Your task to perform on an android device: Go to eBay Image 0: 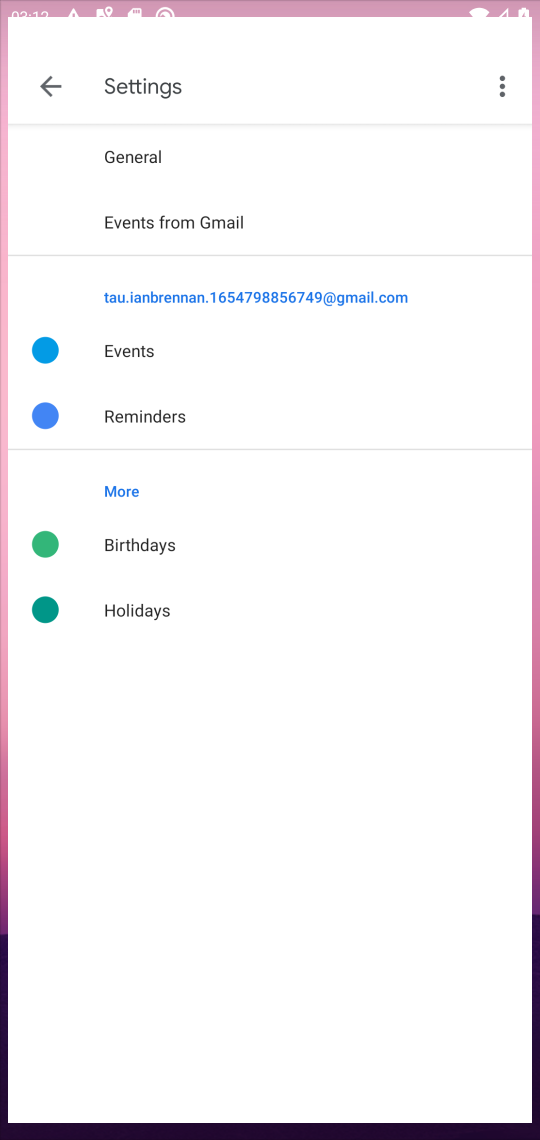
Step 0: drag from (266, 904) to (336, 152)
Your task to perform on an android device: Go to eBay Image 1: 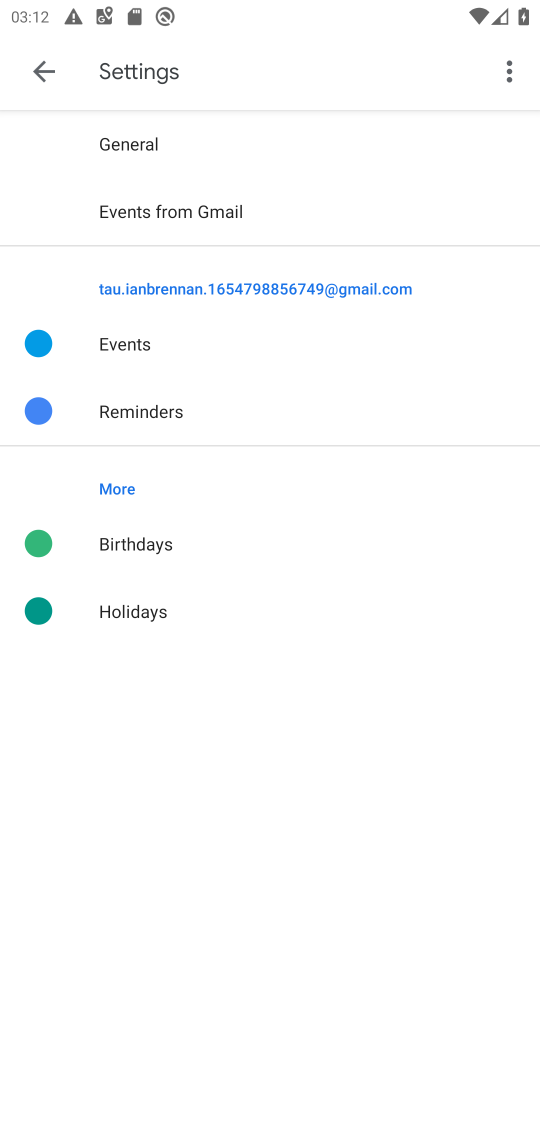
Step 1: press home button
Your task to perform on an android device: Go to eBay Image 2: 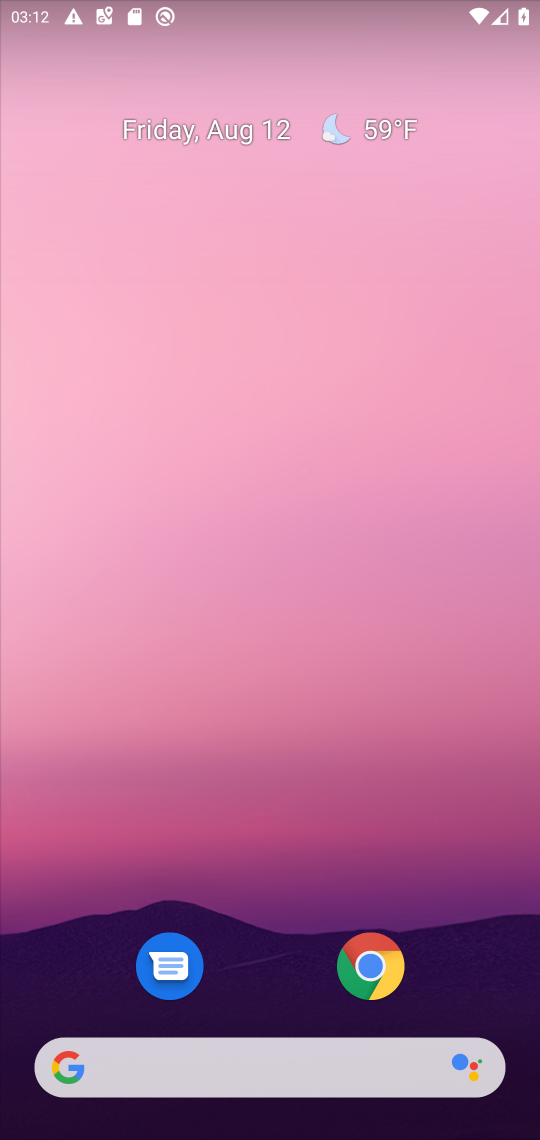
Step 2: drag from (256, 969) to (281, 88)
Your task to perform on an android device: Go to eBay Image 3: 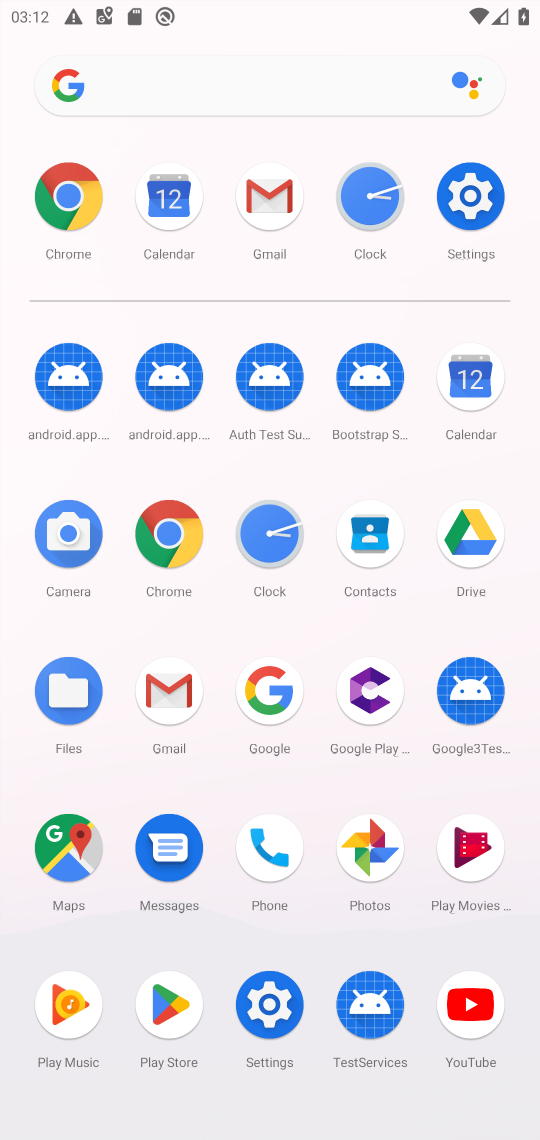
Step 3: click (164, 525)
Your task to perform on an android device: Go to eBay Image 4: 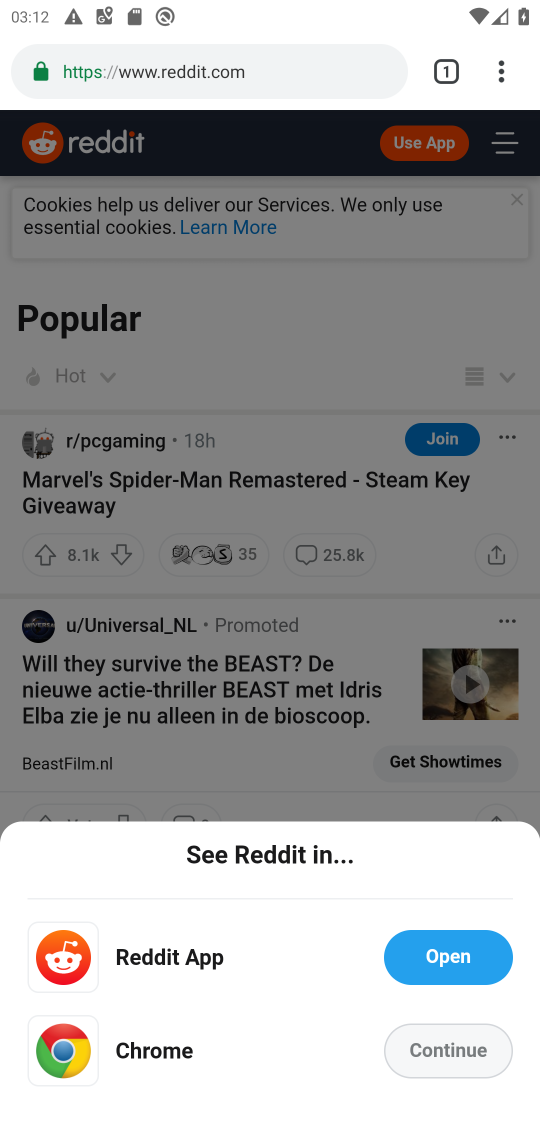
Step 4: click (168, 74)
Your task to perform on an android device: Go to eBay Image 5: 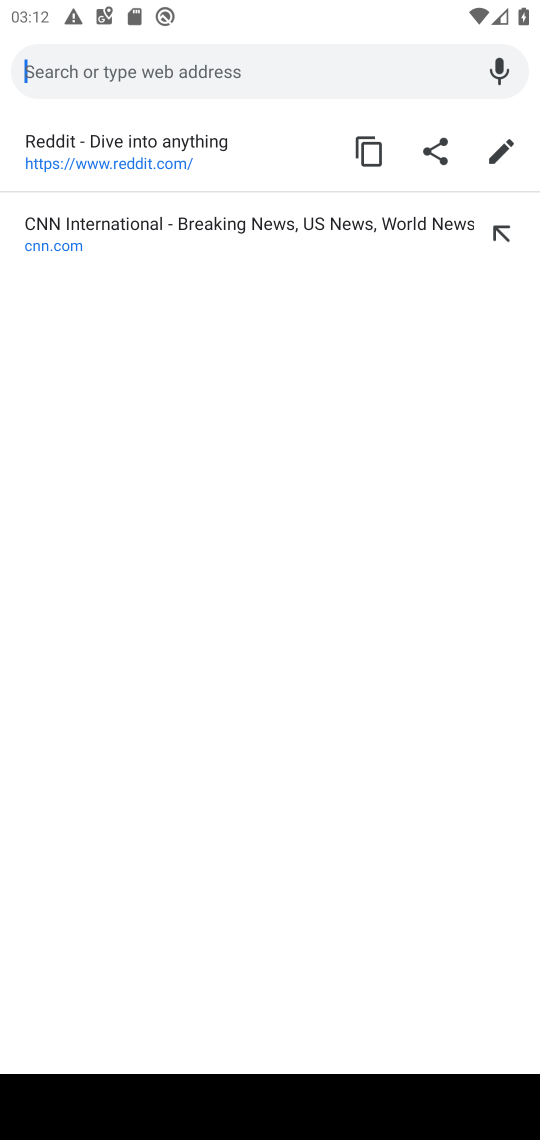
Step 5: type "ebay"
Your task to perform on an android device: Go to eBay Image 6: 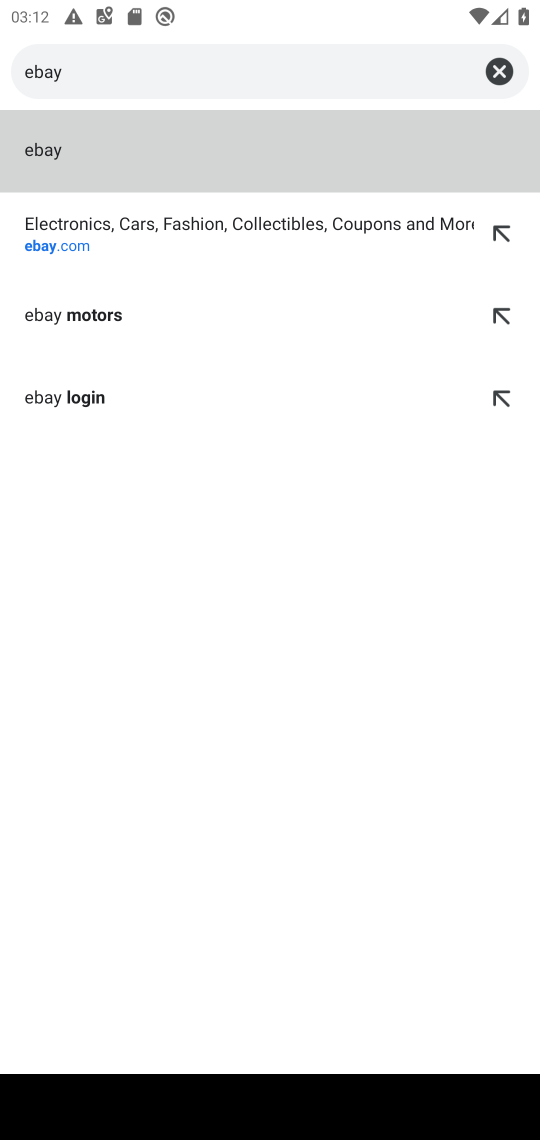
Step 6: click (37, 165)
Your task to perform on an android device: Go to eBay Image 7: 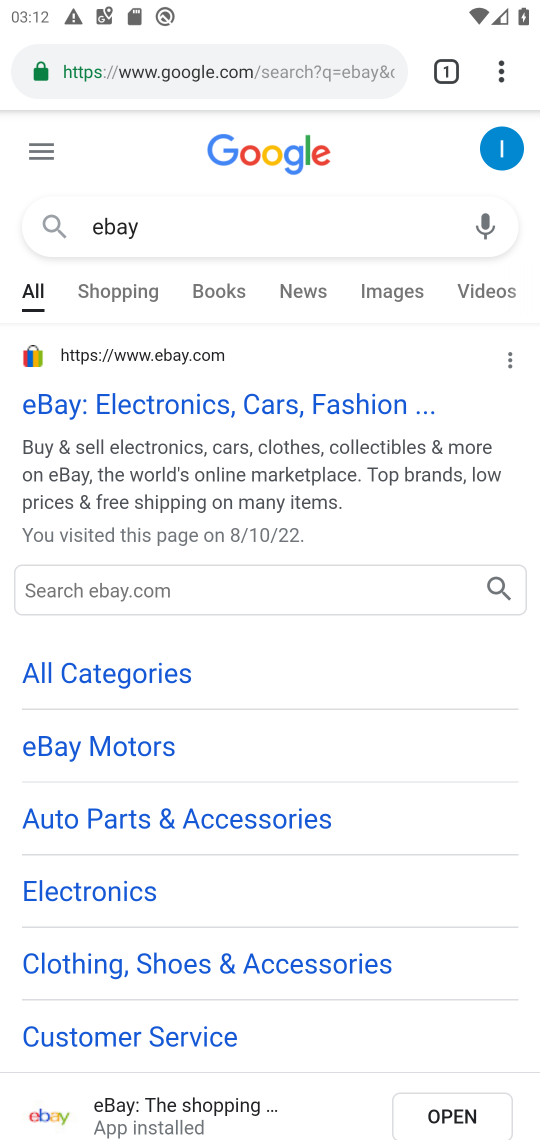
Step 7: click (93, 407)
Your task to perform on an android device: Go to eBay Image 8: 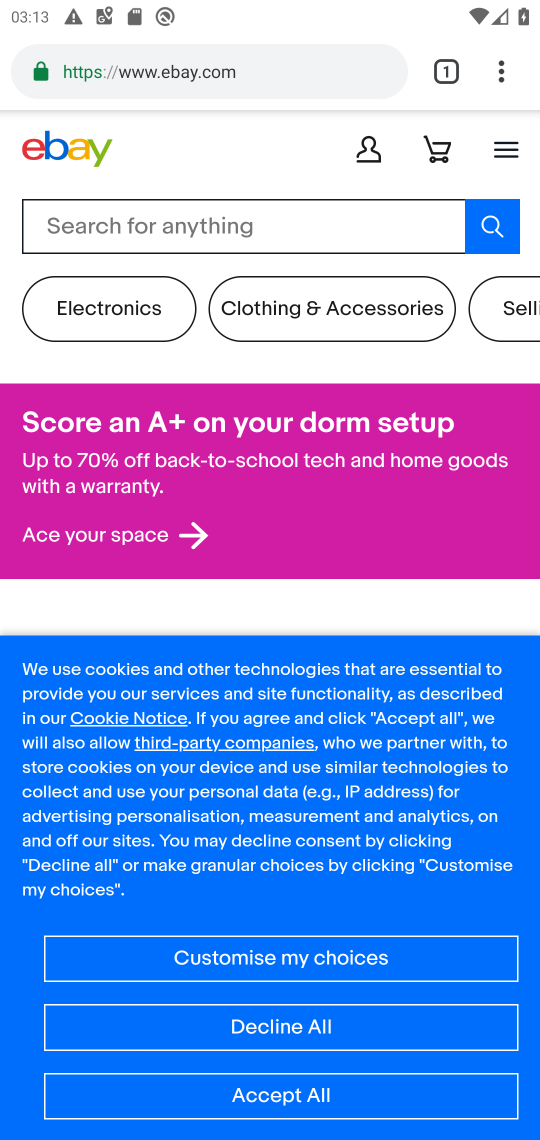
Step 8: task complete